Your task to perform on an android device: Open Wikipedia Image 0: 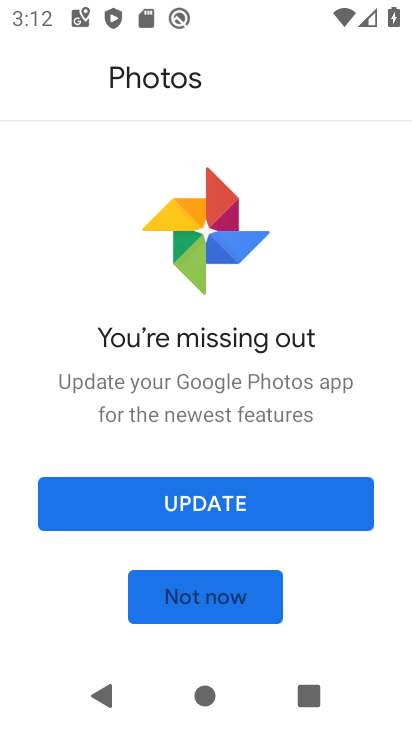
Step 0: click (219, 591)
Your task to perform on an android device: Open Wikipedia Image 1: 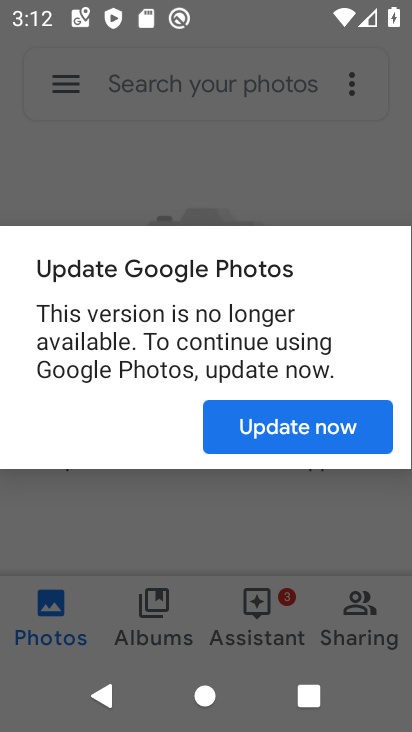
Step 1: press home button
Your task to perform on an android device: Open Wikipedia Image 2: 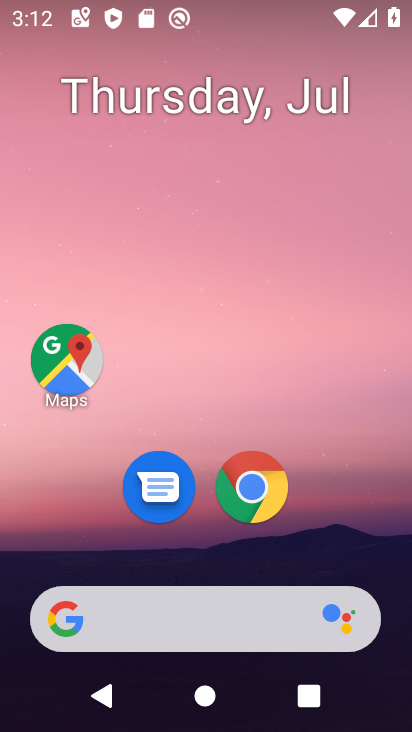
Step 2: click (256, 472)
Your task to perform on an android device: Open Wikipedia Image 3: 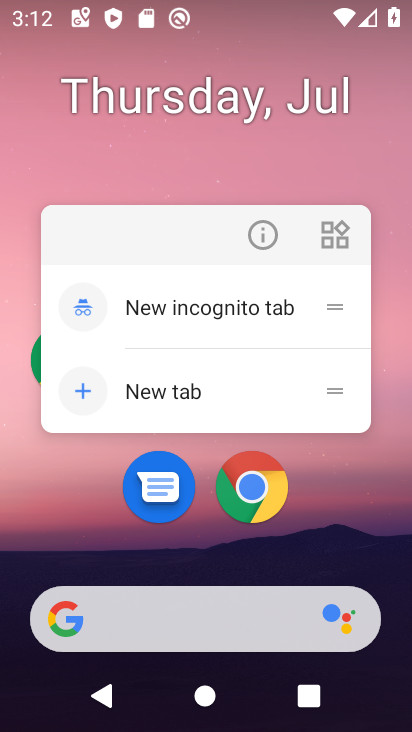
Step 3: click (232, 482)
Your task to perform on an android device: Open Wikipedia Image 4: 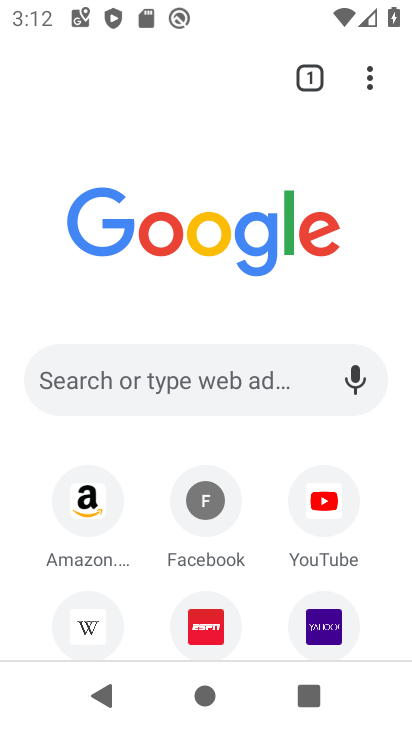
Step 4: click (90, 616)
Your task to perform on an android device: Open Wikipedia Image 5: 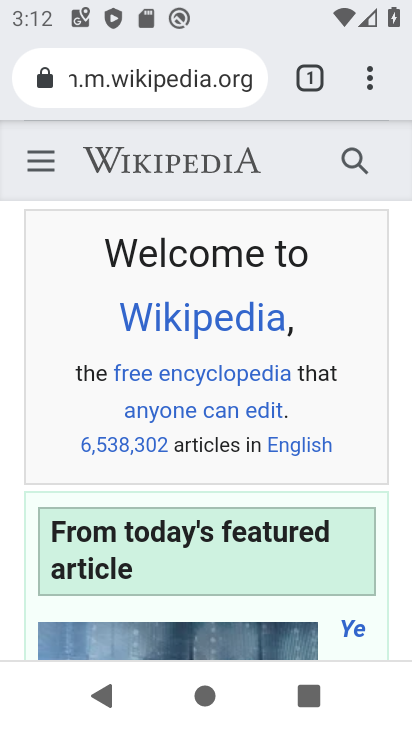
Step 5: task complete